Your task to perform on an android device: turn off translation in the chrome app Image 0: 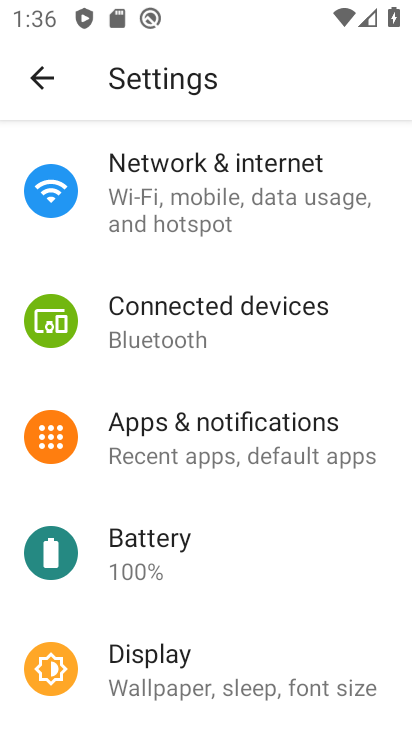
Step 0: drag from (313, 602) to (330, 499)
Your task to perform on an android device: turn off translation in the chrome app Image 1: 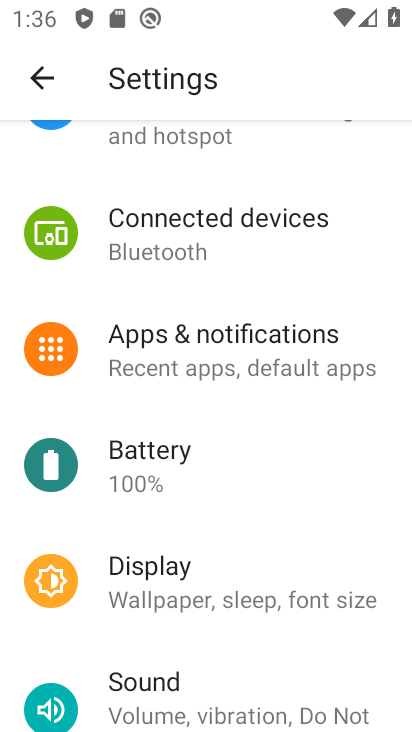
Step 1: drag from (323, 645) to (341, 537)
Your task to perform on an android device: turn off translation in the chrome app Image 2: 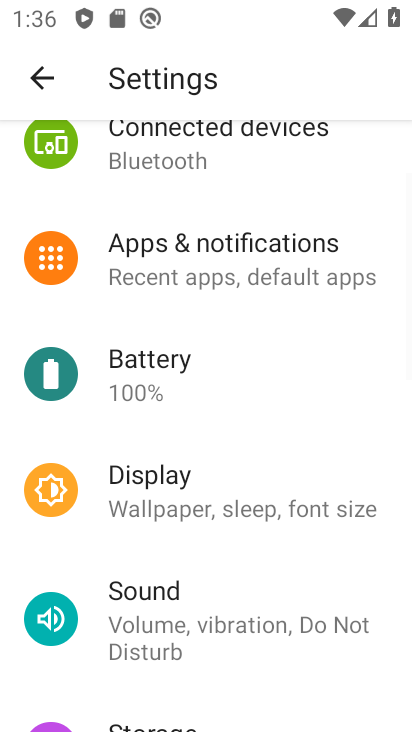
Step 2: drag from (349, 668) to (356, 551)
Your task to perform on an android device: turn off translation in the chrome app Image 3: 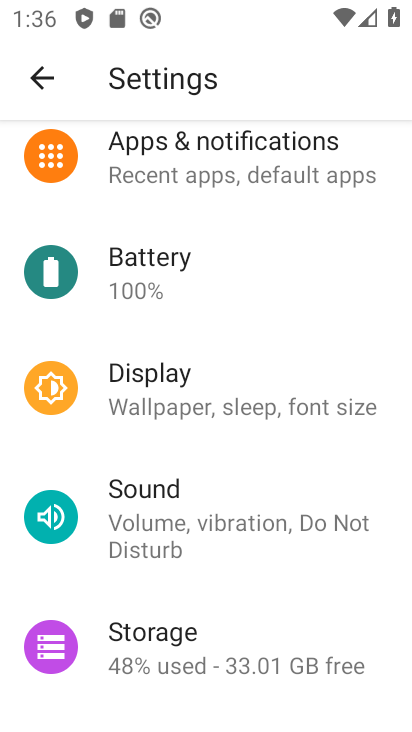
Step 3: drag from (354, 633) to (362, 469)
Your task to perform on an android device: turn off translation in the chrome app Image 4: 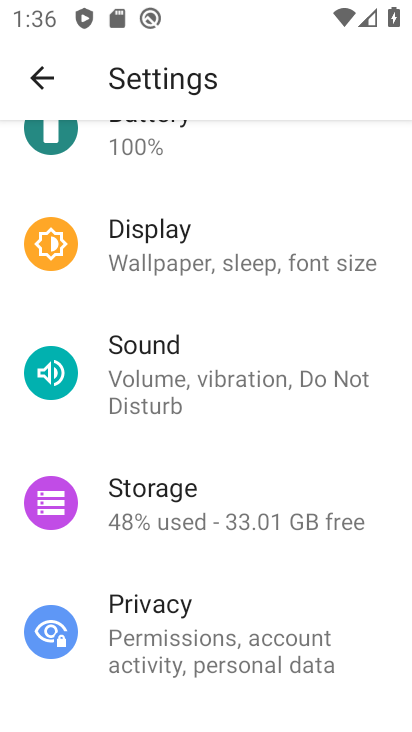
Step 4: drag from (365, 589) to (374, 488)
Your task to perform on an android device: turn off translation in the chrome app Image 5: 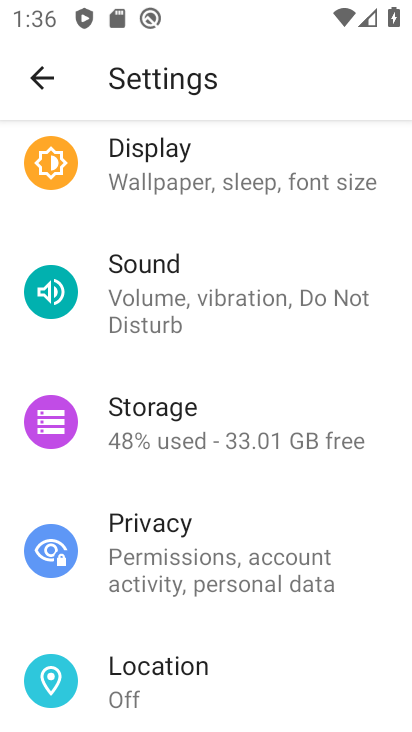
Step 5: drag from (368, 628) to (370, 490)
Your task to perform on an android device: turn off translation in the chrome app Image 6: 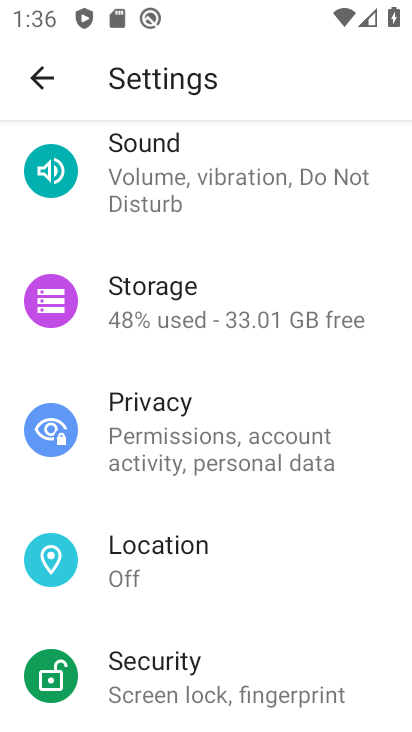
Step 6: drag from (365, 375) to (369, 497)
Your task to perform on an android device: turn off translation in the chrome app Image 7: 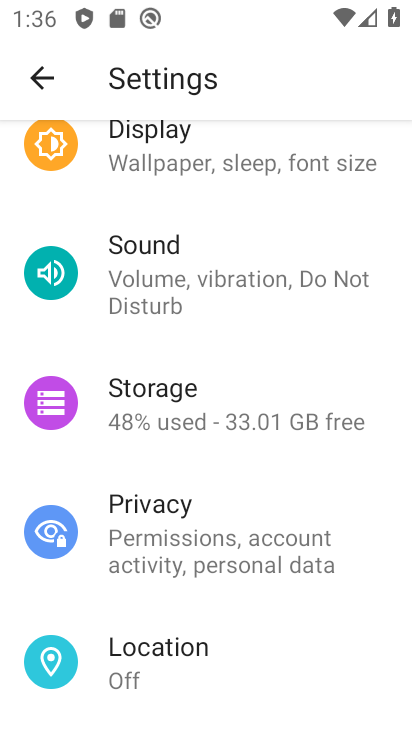
Step 7: press home button
Your task to perform on an android device: turn off translation in the chrome app Image 8: 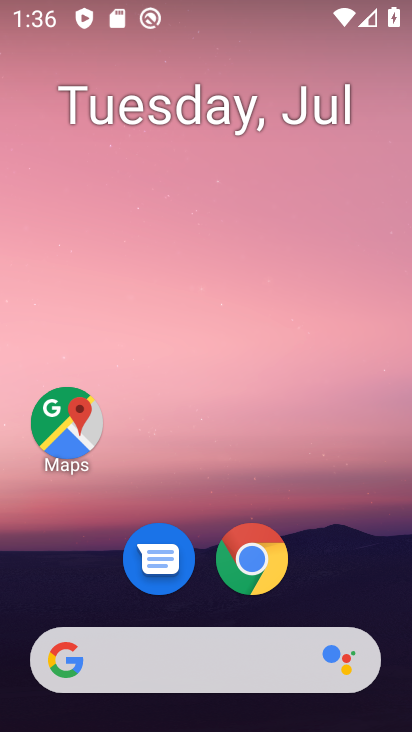
Step 8: drag from (334, 562) to (335, 71)
Your task to perform on an android device: turn off translation in the chrome app Image 9: 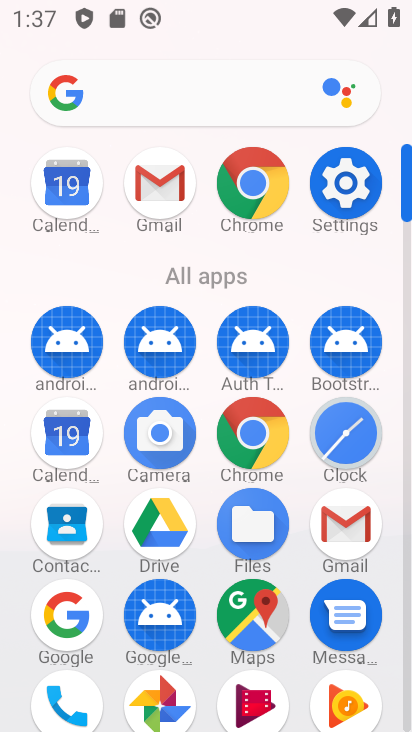
Step 9: click (271, 443)
Your task to perform on an android device: turn off translation in the chrome app Image 10: 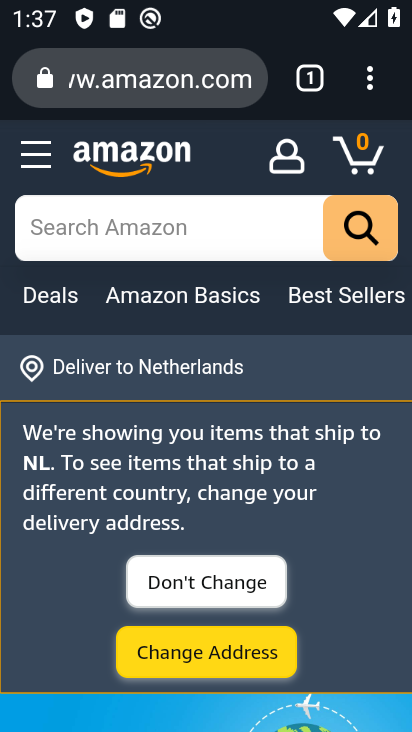
Step 10: click (370, 94)
Your task to perform on an android device: turn off translation in the chrome app Image 11: 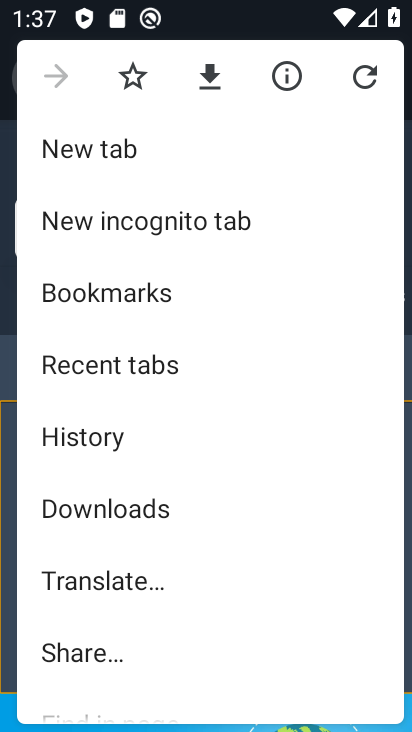
Step 11: drag from (302, 501) to (307, 325)
Your task to perform on an android device: turn off translation in the chrome app Image 12: 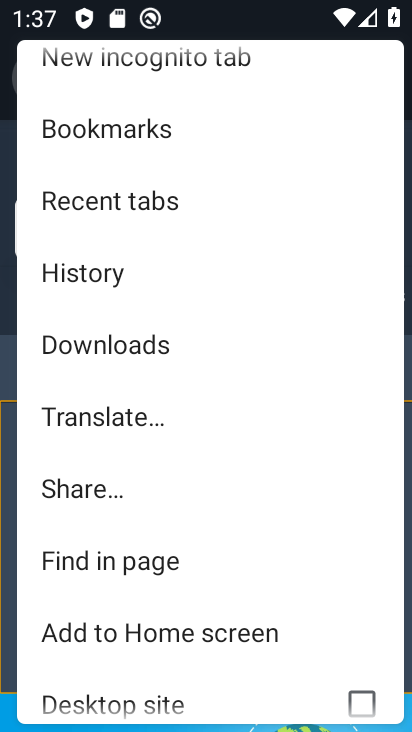
Step 12: drag from (292, 488) to (311, 238)
Your task to perform on an android device: turn off translation in the chrome app Image 13: 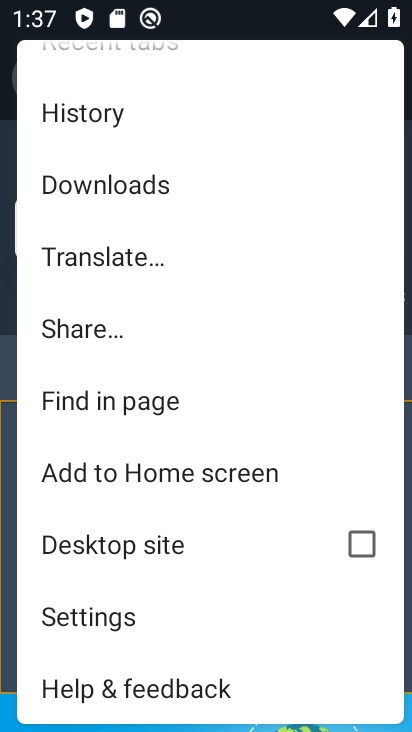
Step 13: click (242, 618)
Your task to perform on an android device: turn off translation in the chrome app Image 14: 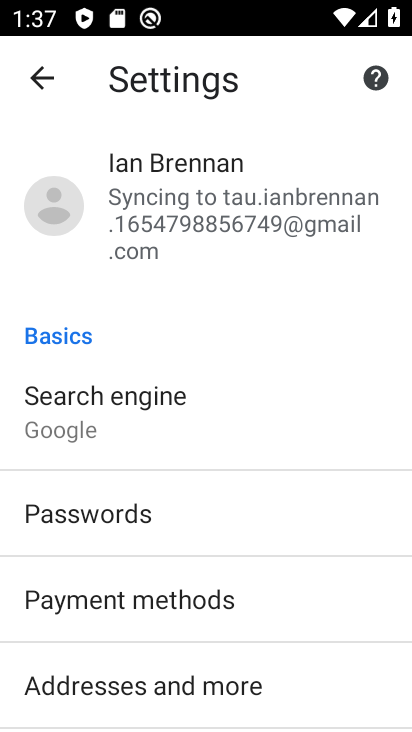
Step 14: drag from (350, 608) to (350, 422)
Your task to perform on an android device: turn off translation in the chrome app Image 15: 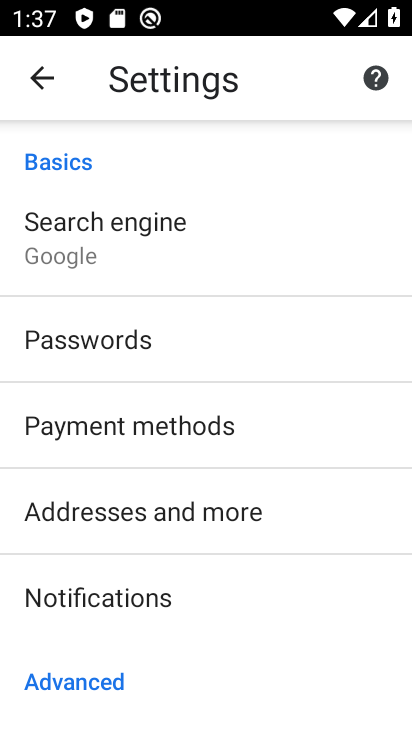
Step 15: drag from (323, 555) to (341, 427)
Your task to perform on an android device: turn off translation in the chrome app Image 16: 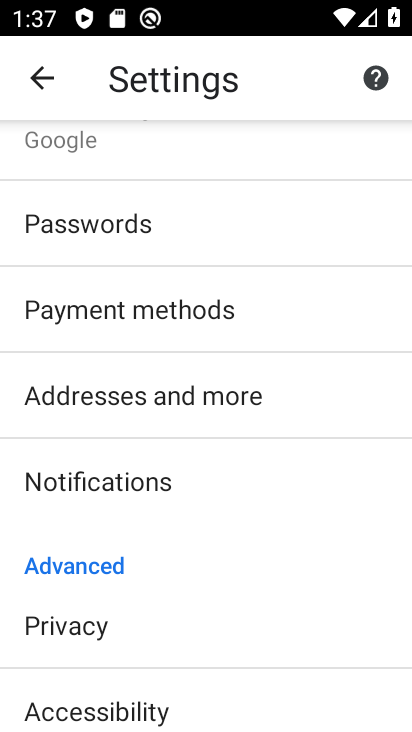
Step 16: drag from (334, 539) to (336, 418)
Your task to perform on an android device: turn off translation in the chrome app Image 17: 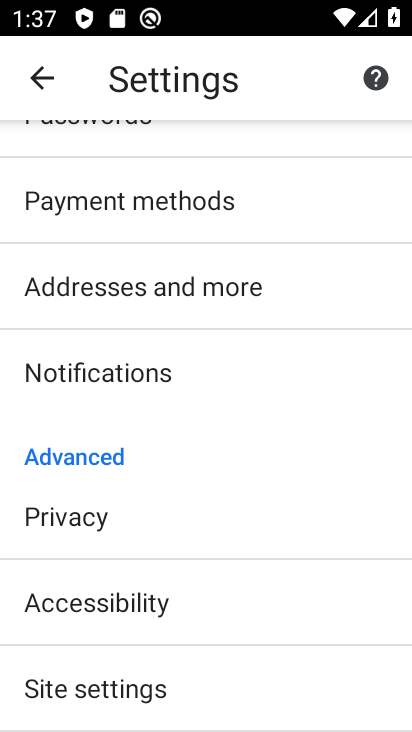
Step 17: drag from (330, 492) to (336, 384)
Your task to perform on an android device: turn off translation in the chrome app Image 18: 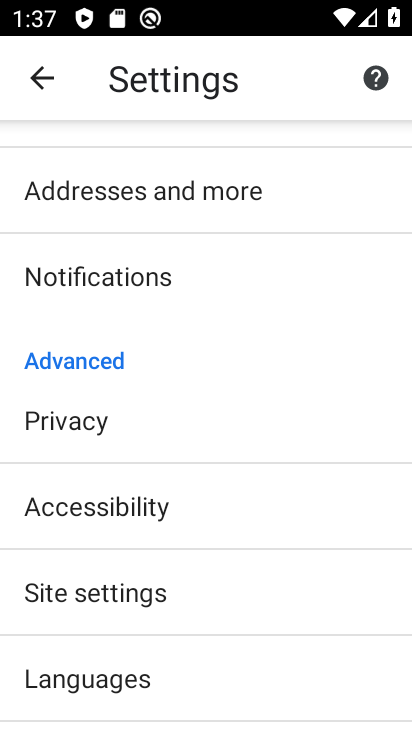
Step 18: drag from (341, 541) to (351, 407)
Your task to perform on an android device: turn off translation in the chrome app Image 19: 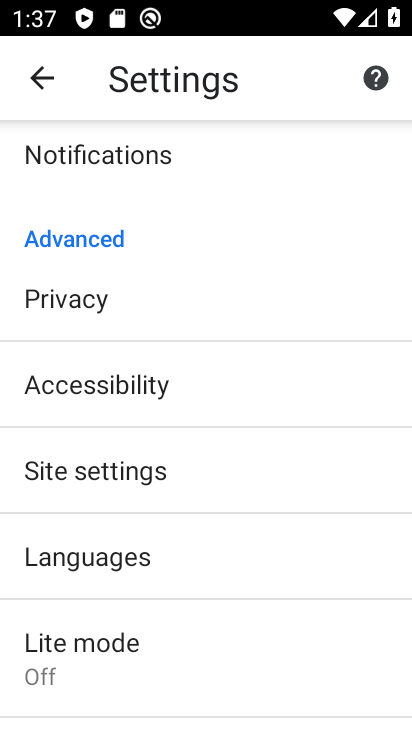
Step 19: click (336, 549)
Your task to perform on an android device: turn off translation in the chrome app Image 20: 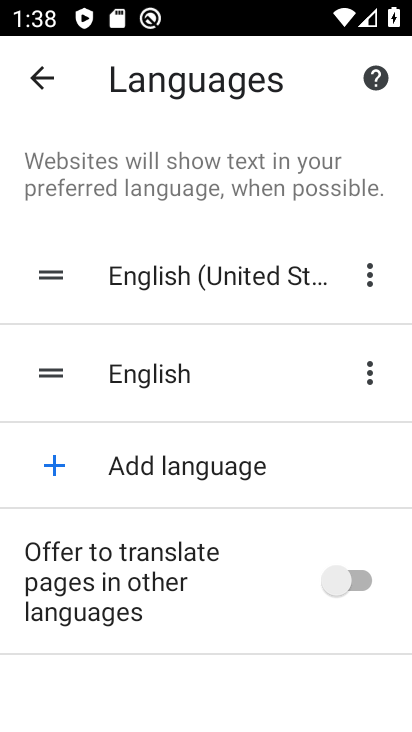
Step 20: task complete